Your task to perform on an android device: Open Android settings Image 0: 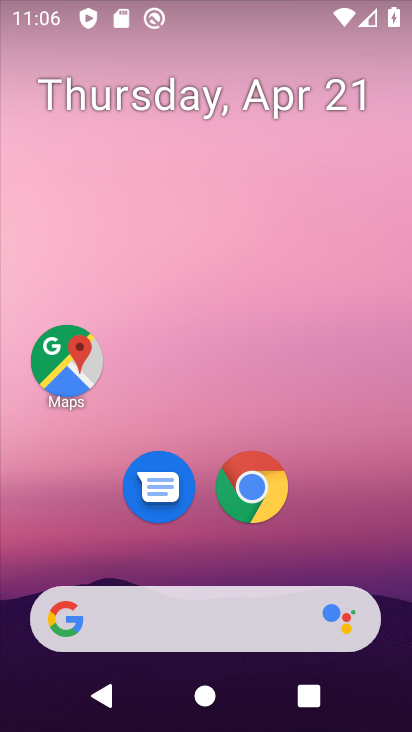
Step 0: drag from (193, 479) to (270, 64)
Your task to perform on an android device: Open Android settings Image 1: 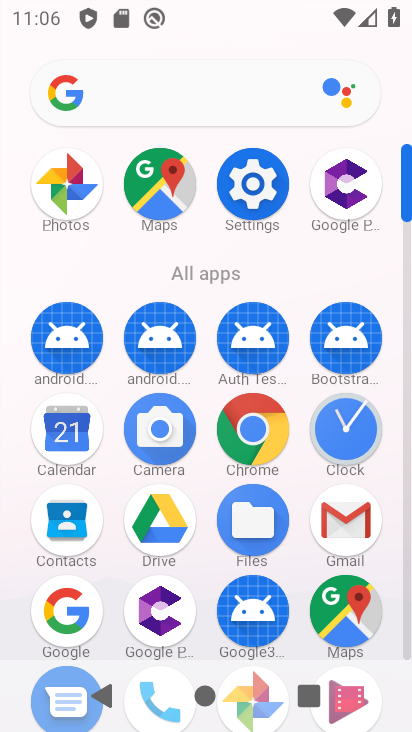
Step 1: click (263, 197)
Your task to perform on an android device: Open Android settings Image 2: 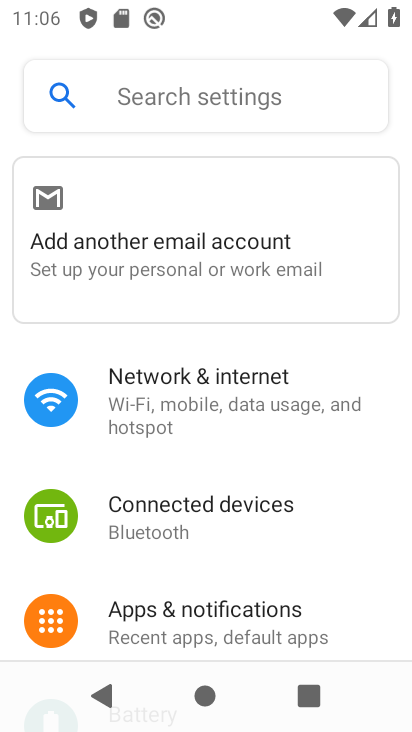
Step 2: task complete